Your task to perform on an android device: turn notification dots on Image 0: 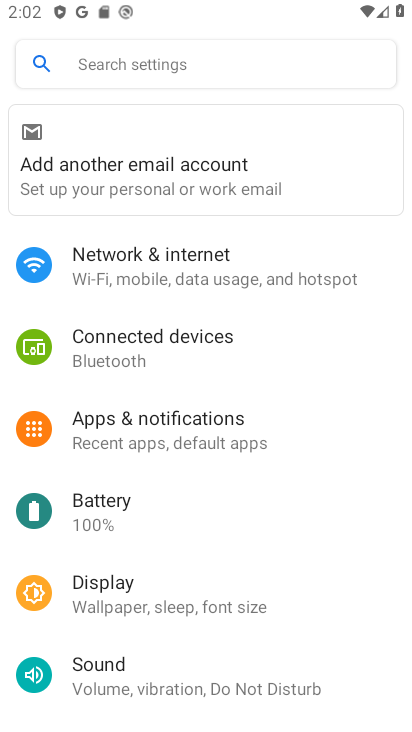
Step 0: click (212, 442)
Your task to perform on an android device: turn notification dots on Image 1: 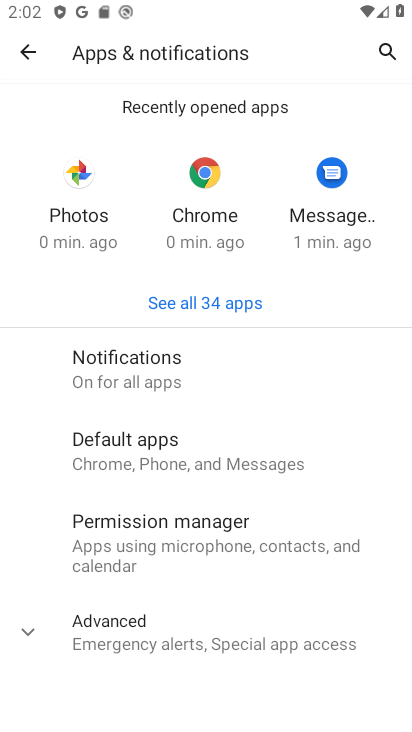
Step 1: click (233, 363)
Your task to perform on an android device: turn notification dots on Image 2: 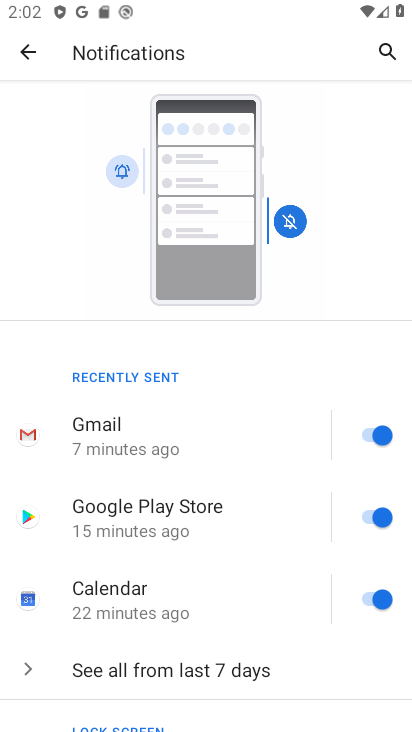
Step 2: drag from (282, 726) to (200, 101)
Your task to perform on an android device: turn notification dots on Image 3: 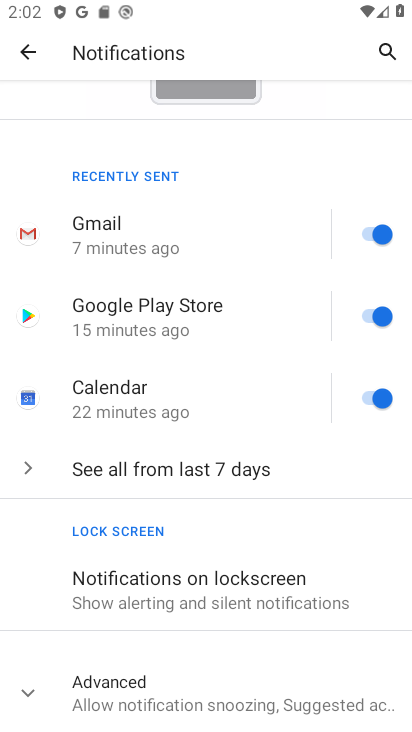
Step 3: click (190, 685)
Your task to perform on an android device: turn notification dots on Image 4: 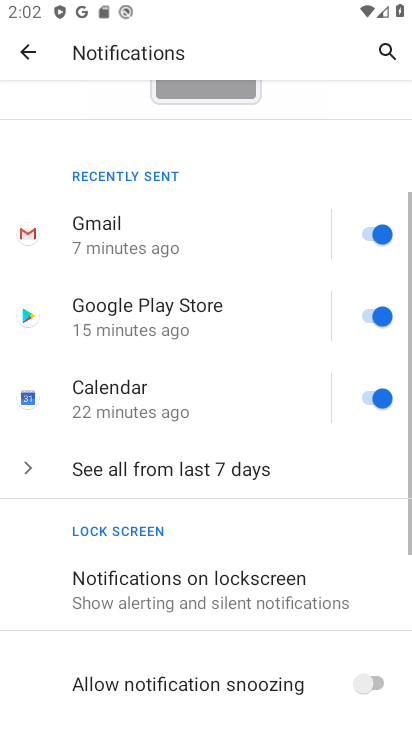
Step 4: task complete